Your task to perform on an android device: Find coffee shops on Maps Image 0: 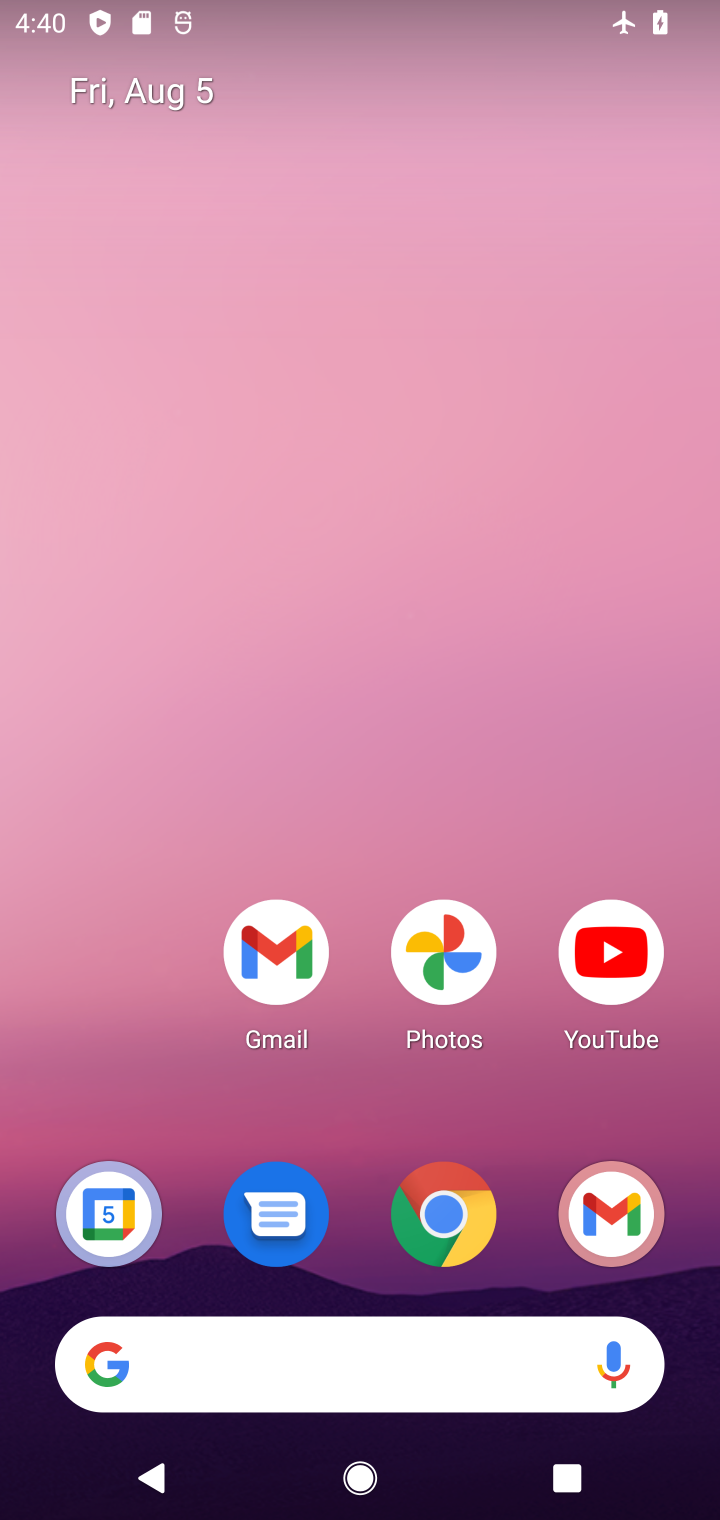
Step 0: drag from (132, 1045) to (203, 0)
Your task to perform on an android device: Find coffee shops on Maps Image 1: 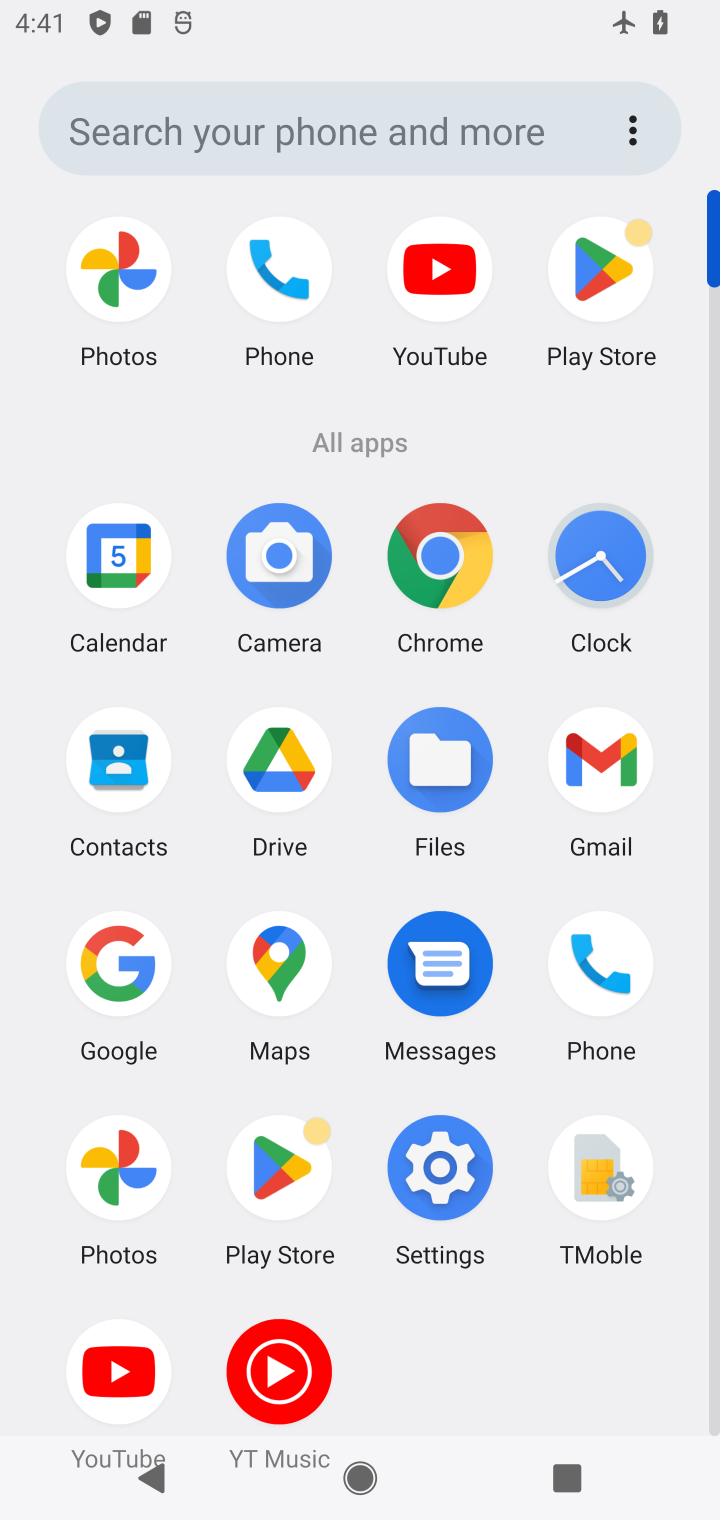
Step 1: click (285, 965)
Your task to perform on an android device: Find coffee shops on Maps Image 2: 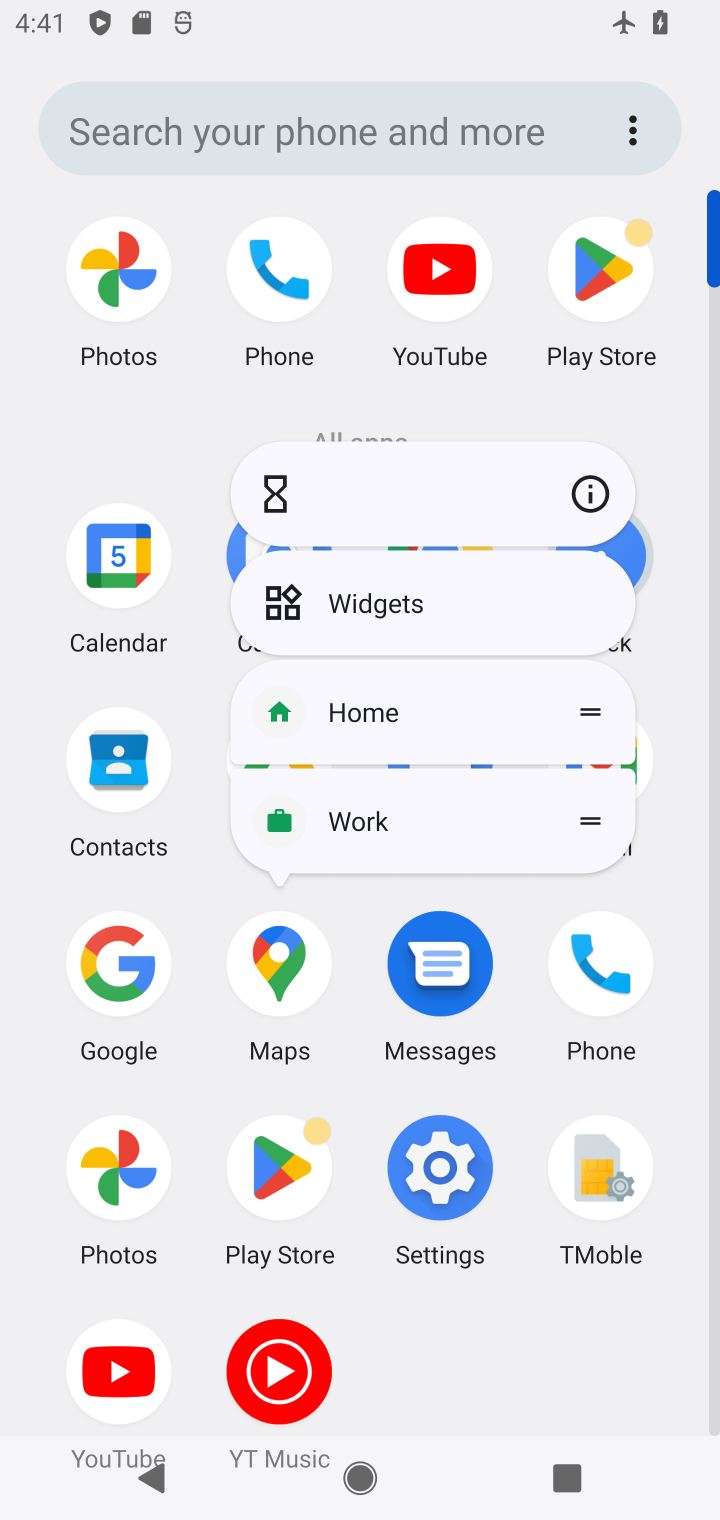
Step 2: click (273, 952)
Your task to perform on an android device: Find coffee shops on Maps Image 3: 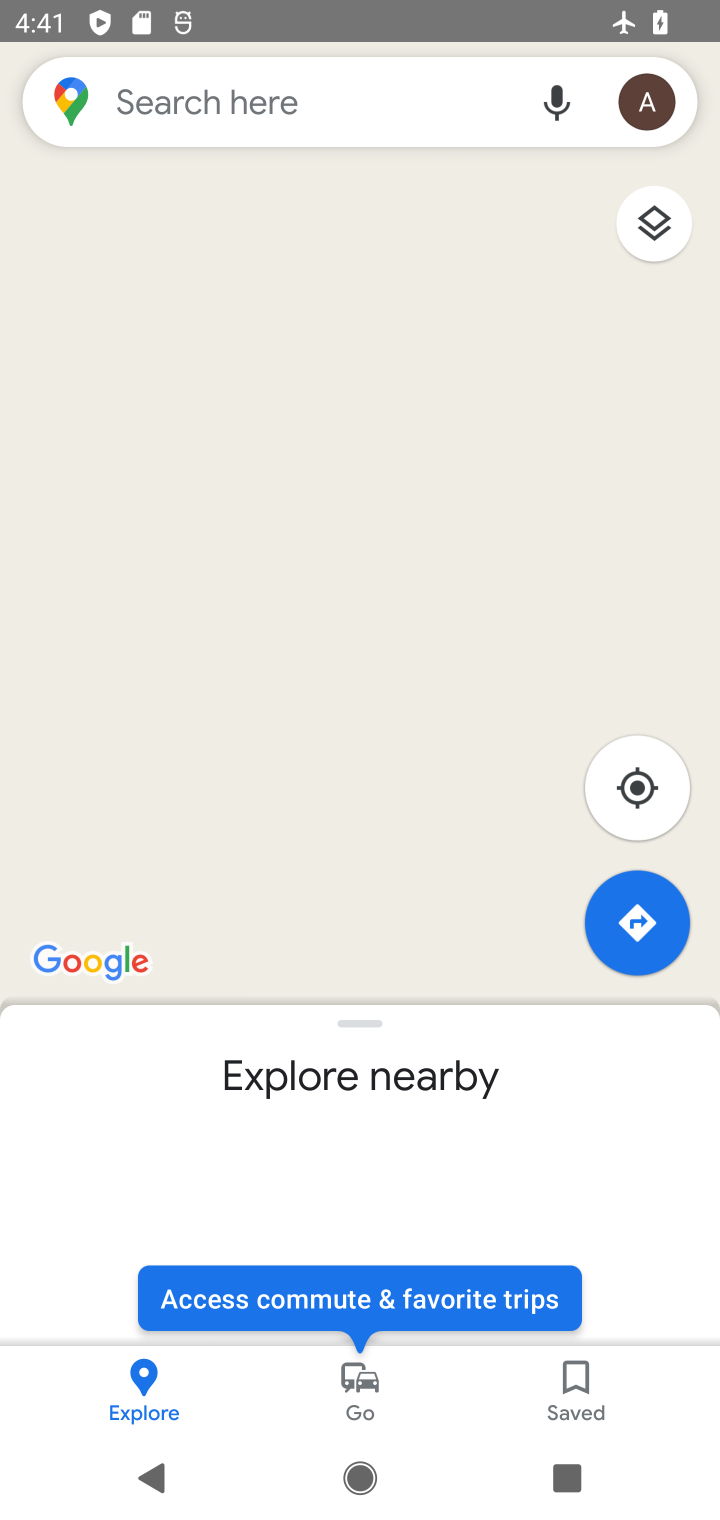
Step 3: click (408, 94)
Your task to perform on an android device: Find coffee shops on Maps Image 4: 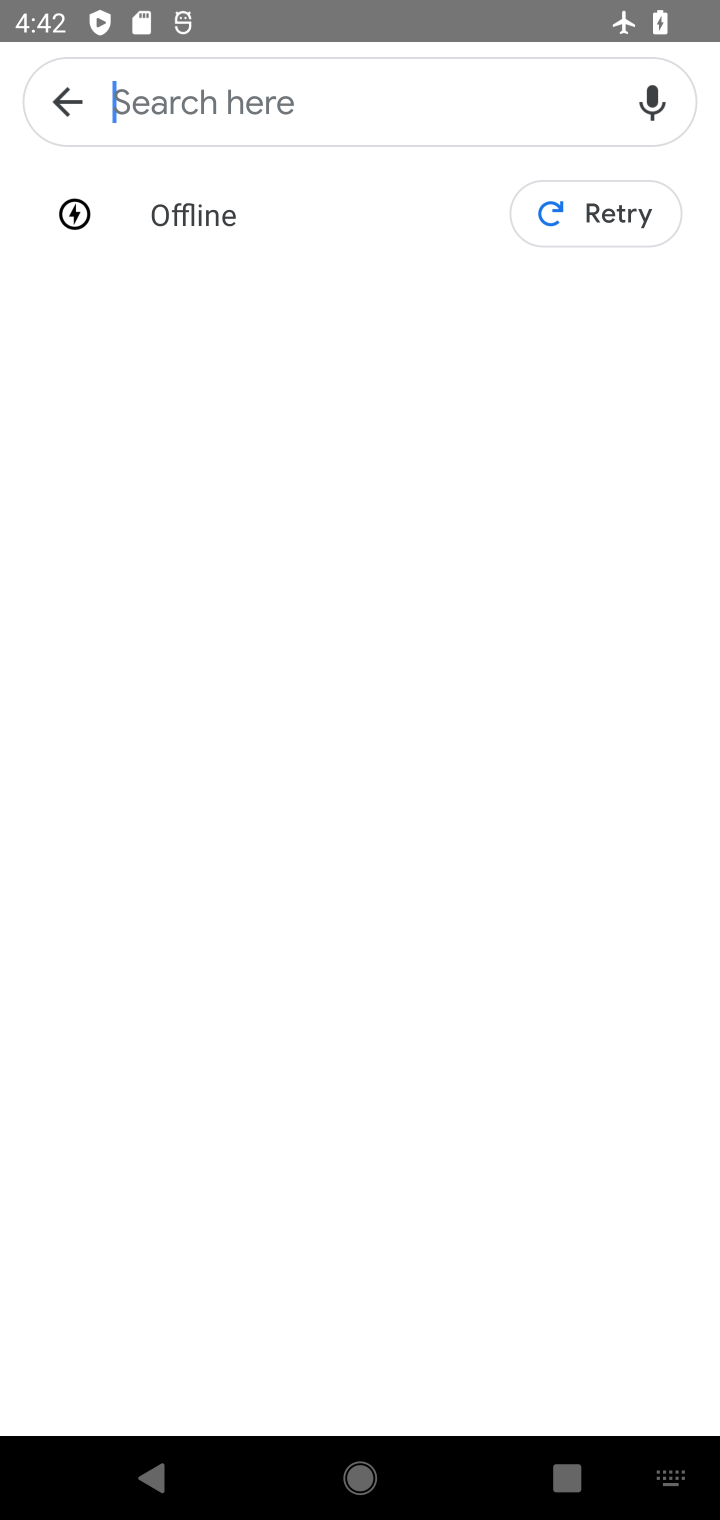
Step 4: type "coffee shop"
Your task to perform on an android device: Find coffee shops on Maps Image 5: 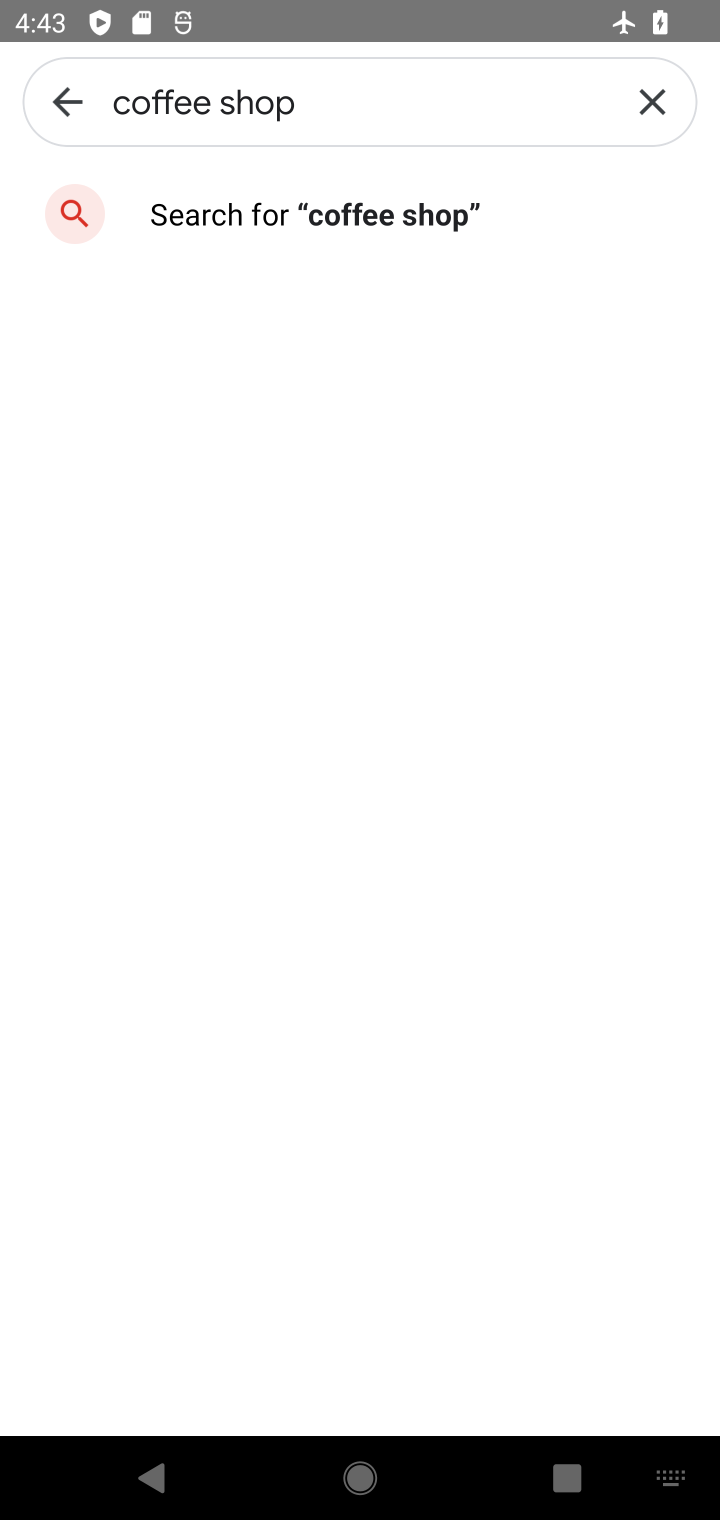
Step 5: task complete